Your task to perform on an android device: find which apps use the phone's location Image 0: 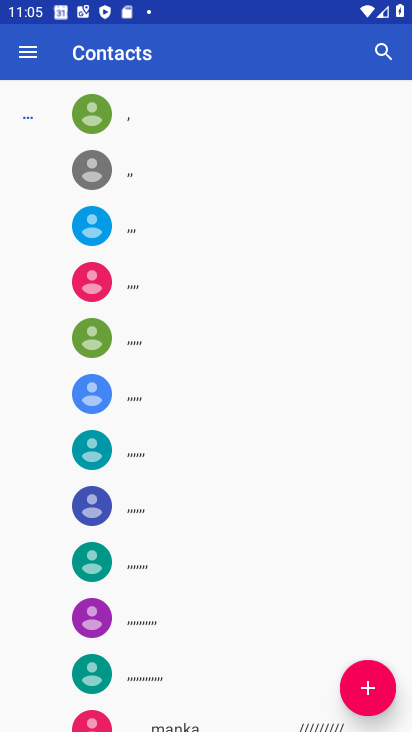
Step 0: press home button
Your task to perform on an android device: find which apps use the phone's location Image 1: 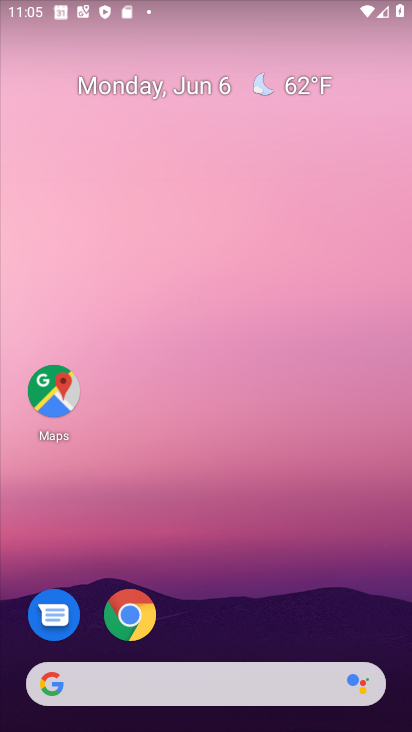
Step 1: drag from (228, 680) to (206, 46)
Your task to perform on an android device: find which apps use the phone's location Image 2: 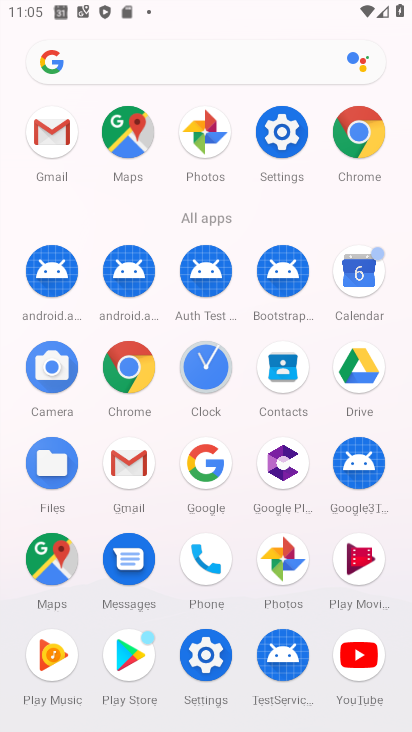
Step 2: click (272, 133)
Your task to perform on an android device: find which apps use the phone's location Image 3: 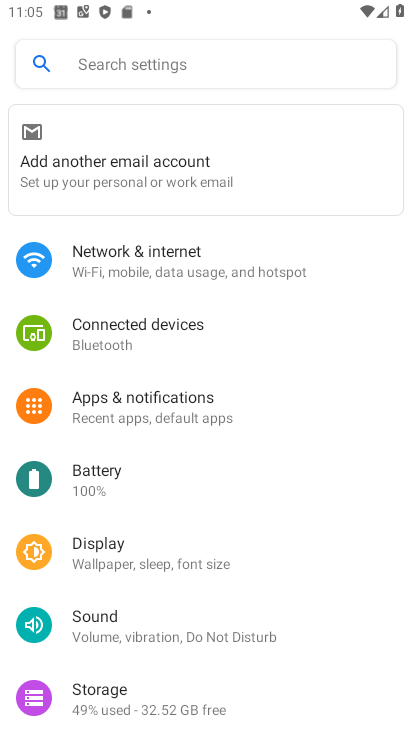
Step 3: drag from (140, 622) to (113, 244)
Your task to perform on an android device: find which apps use the phone's location Image 4: 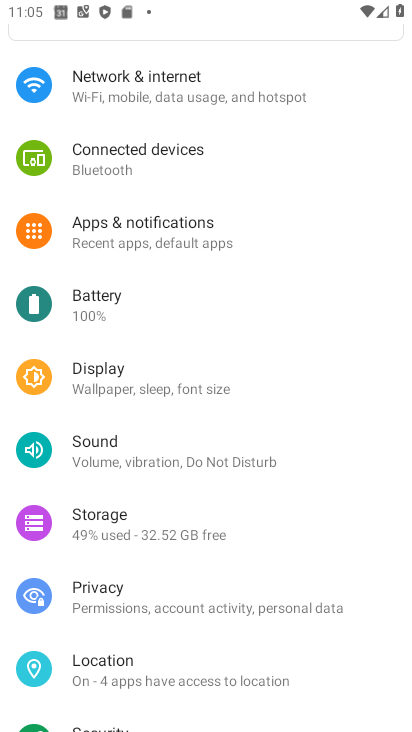
Step 4: click (139, 657)
Your task to perform on an android device: find which apps use the phone's location Image 5: 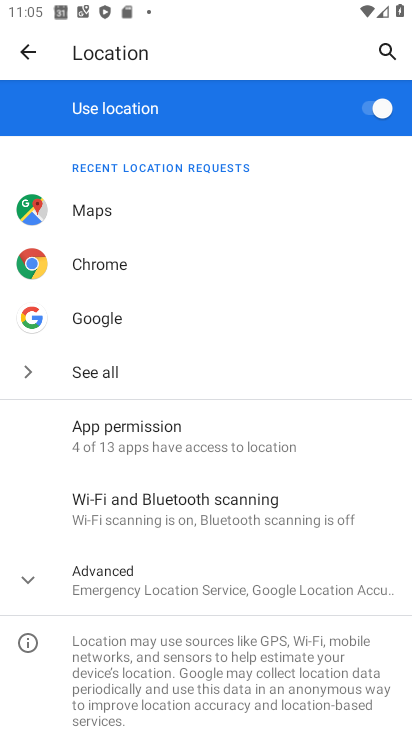
Step 5: click (98, 424)
Your task to perform on an android device: find which apps use the phone's location Image 6: 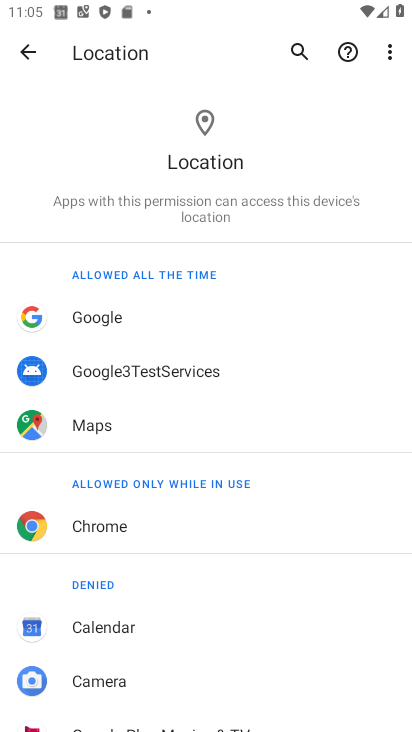
Step 6: task complete